Your task to perform on an android device: Go to ESPN.com Image 0: 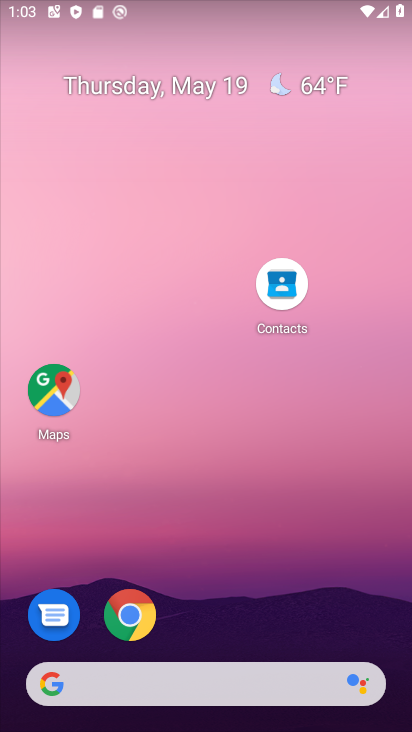
Step 0: drag from (277, 548) to (340, 6)
Your task to perform on an android device: Go to ESPN.com Image 1: 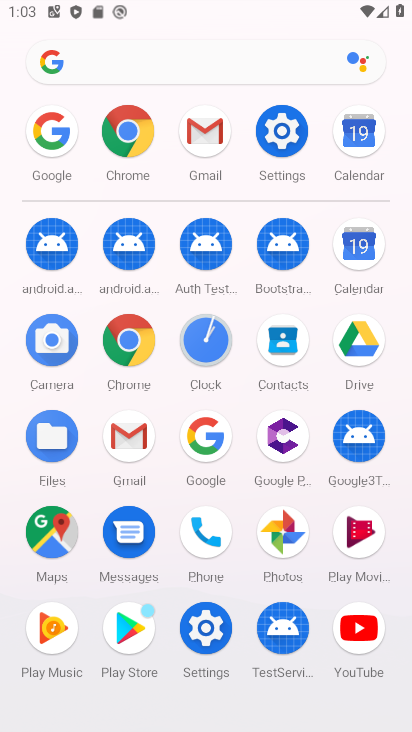
Step 1: click (123, 348)
Your task to perform on an android device: Go to ESPN.com Image 2: 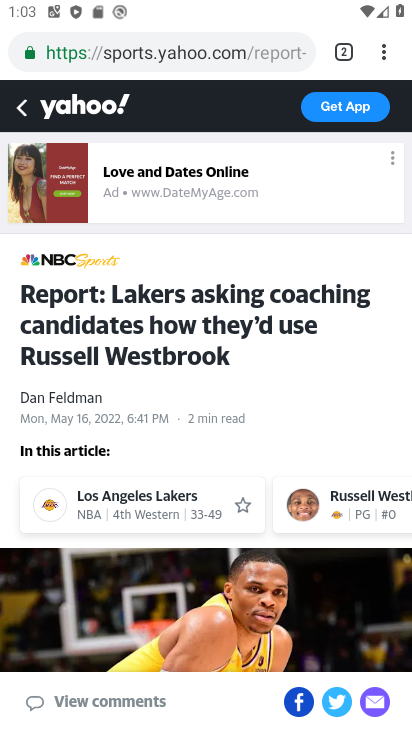
Step 2: click (297, 55)
Your task to perform on an android device: Go to ESPN.com Image 3: 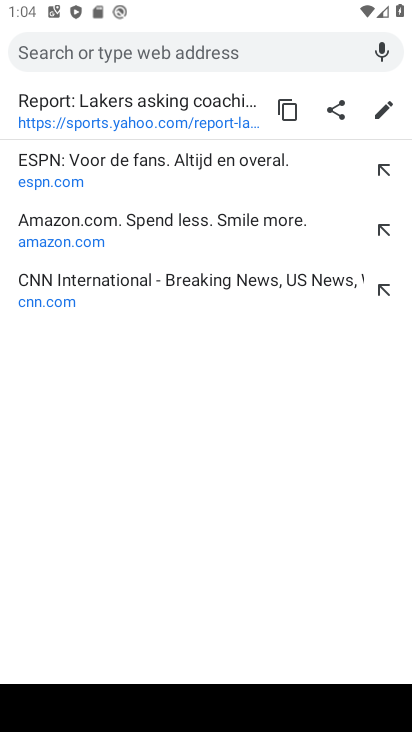
Step 3: click (44, 187)
Your task to perform on an android device: Go to ESPN.com Image 4: 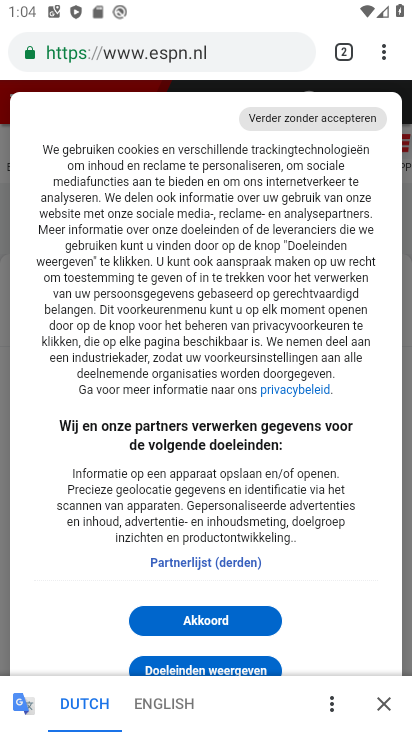
Step 4: task complete